Your task to perform on an android device: Open battery settings Image 0: 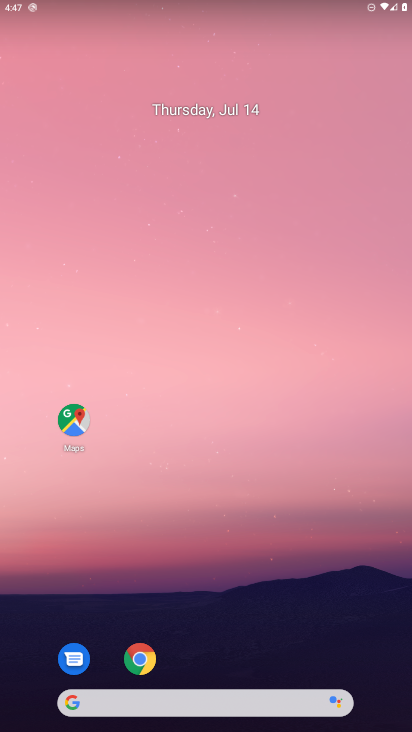
Step 0: press home button
Your task to perform on an android device: Open battery settings Image 1: 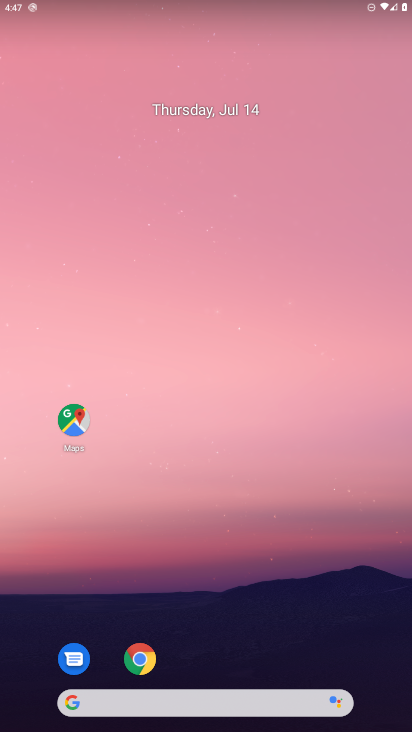
Step 1: drag from (213, 654) to (302, 58)
Your task to perform on an android device: Open battery settings Image 2: 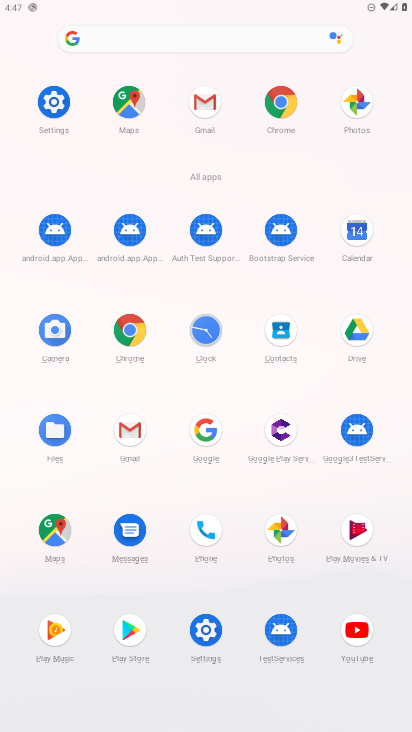
Step 2: click (50, 96)
Your task to perform on an android device: Open battery settings Image 3: 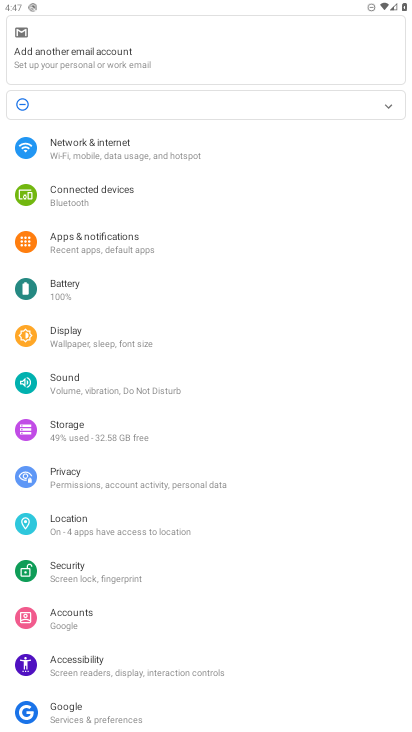
Step 3: click (87, 289)
Your task to perform on an android device: Open battery settings Image 4: 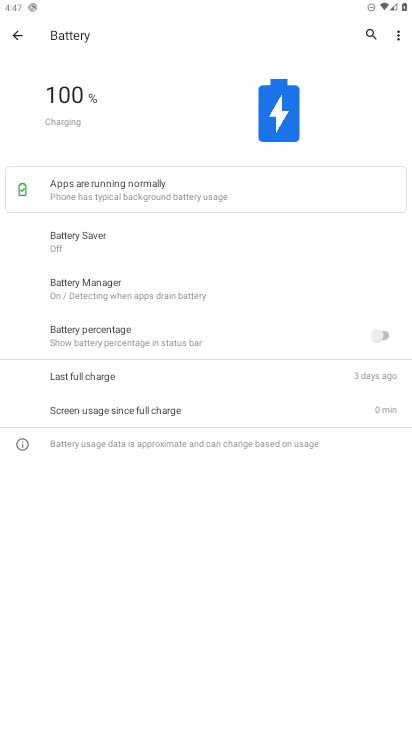
Step 4: task complete